Your task to perform on an android device: toggle javascript in the chrome app Image 0: 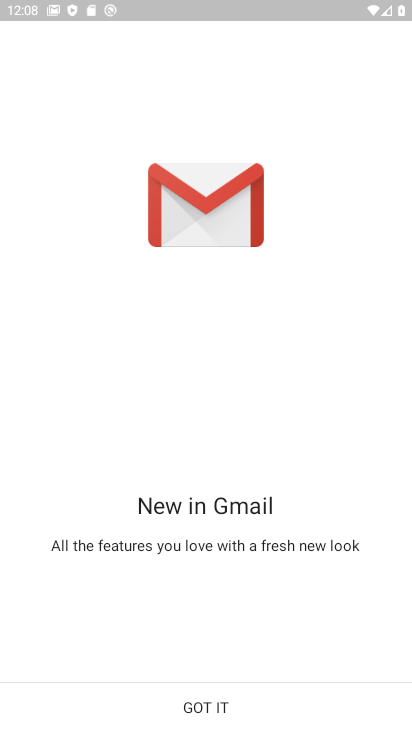
Step 0: press home button
Your task to perform on an android device: toggle javascript in the chrome app Image 1: 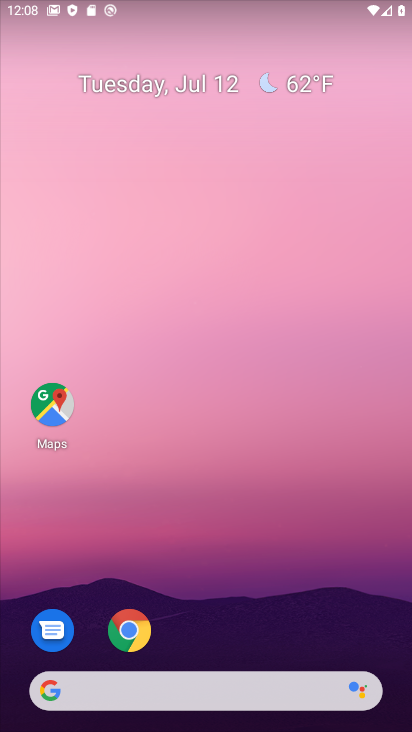
Step 1: click (121, 626)
Your task to perform on an android device: toggle javascript in the chrome app Image 2: 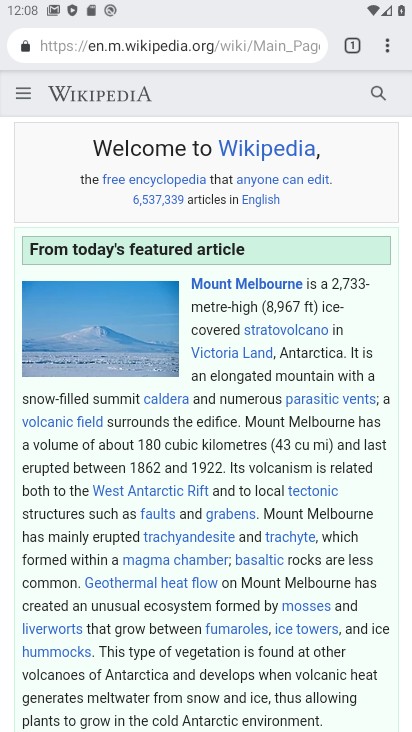
Step 2: click (389, 45)
Your task to perform on an android device: toggle javascript in the chrome app Image 3: 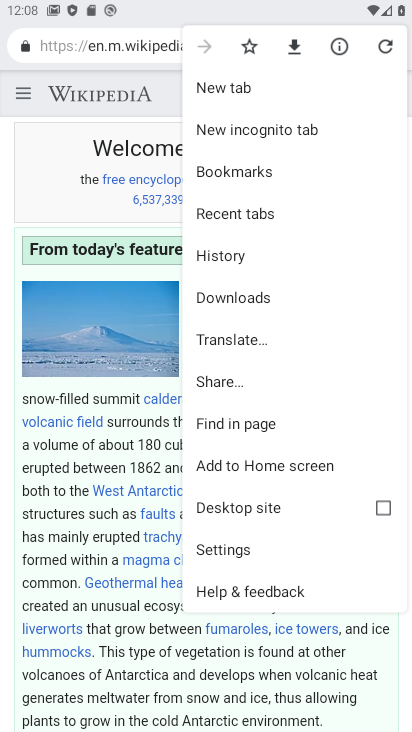
Step 3: click (236, 541)
Your task to perform on an android device: toggle javascript in the chrome app Image 4: 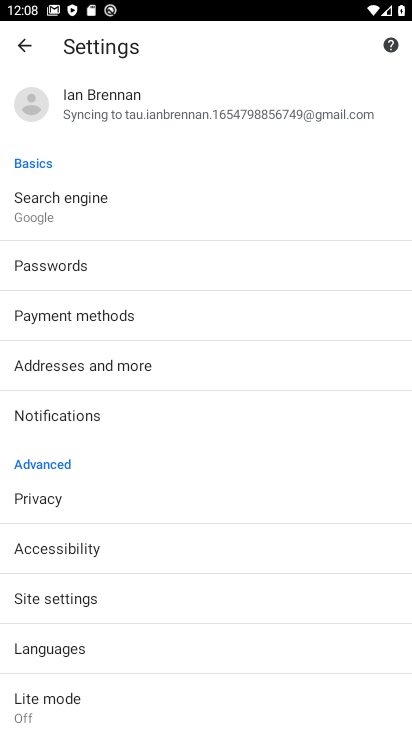
Step 4: click (57, 603)
Your task to perform on an android device: toggle javascript in the chrome app Image 5: 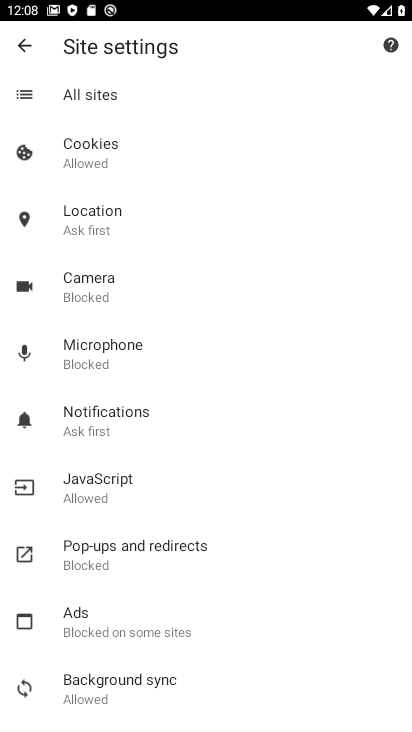
Step 5: click (86, 475)
Your task to perform on an android device: toggle javascript in the chrome app Image 6: 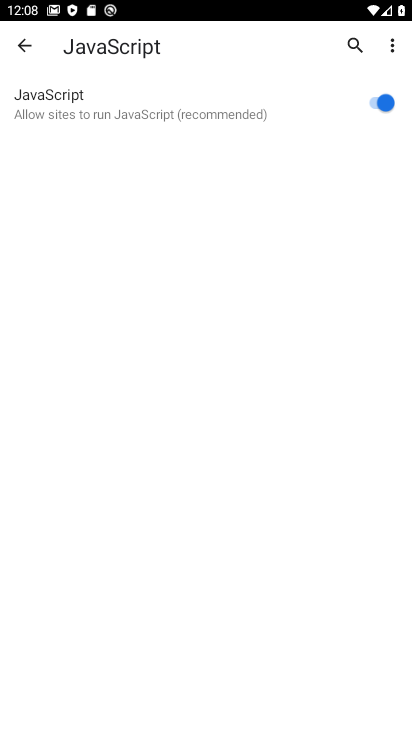
Step 6: click (376, 106)
Your task to perform on an android device: toggle javascript in the chrome app Image 7: 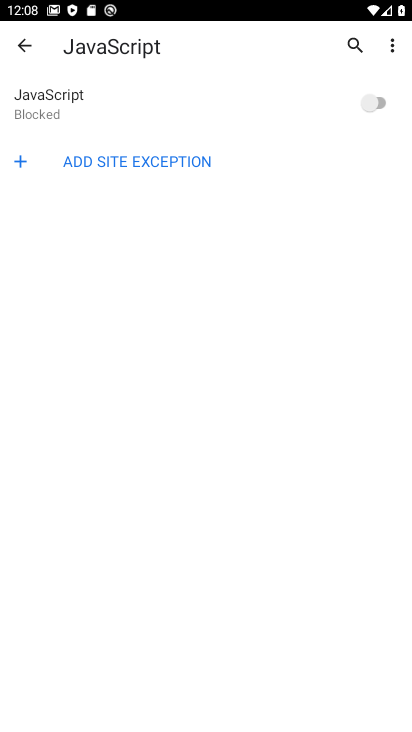
Step 7: task complete